Your task to perform on an android device: What is the news today? Image 0: 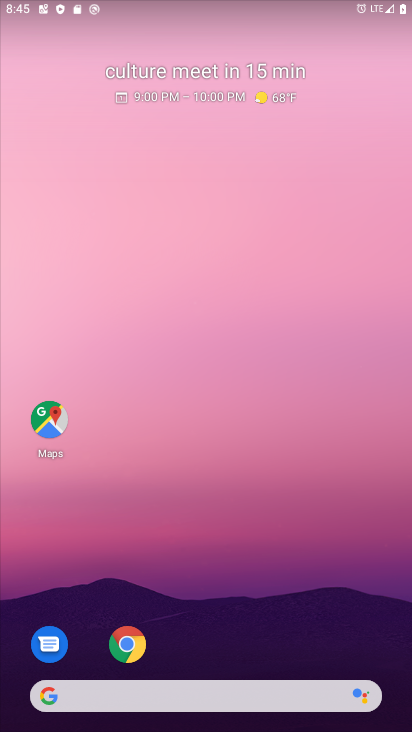
Step 0: click (171, 162)
Your task to perform on an android device: What is the news today? Image 1: 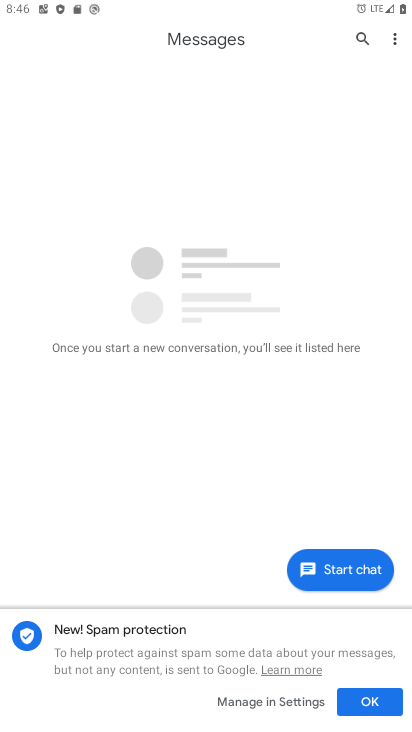
Step 1: press home button
Your task to perform on an android device: What is the news today? Image 2: 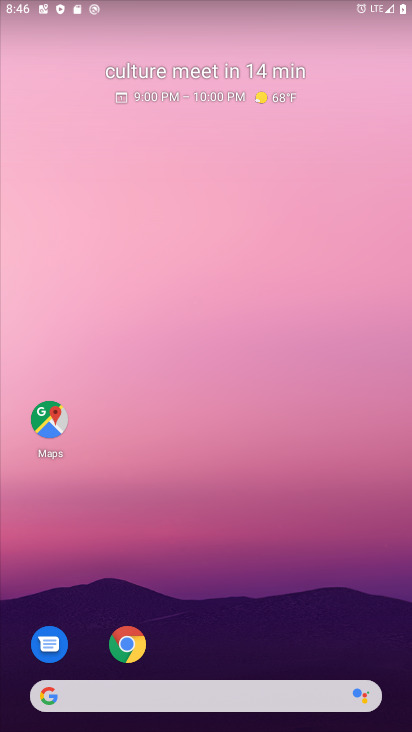
Step 2: drag from (219, 718) to (187, 200)
Your task to perform on an android device: What is the news today? Image 3: 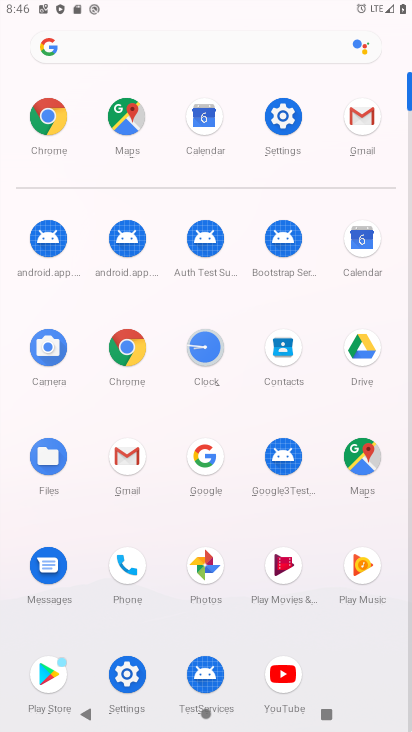
Step 3: click (132, 43)
Your task to perform on an android device: What is the news today? Image 4: 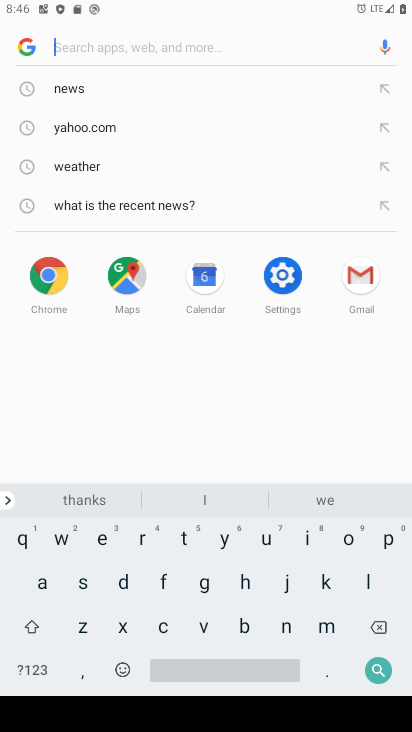
Step 4: click (111, 89)
Your task to perform on an android device: What is the news today? Image 5: 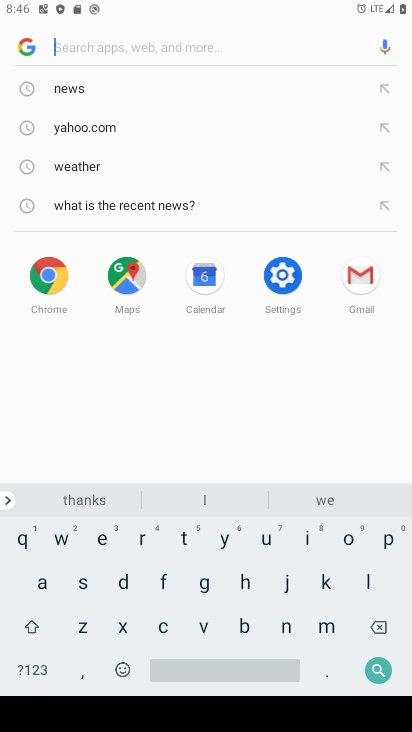
Step 5: click (103, 86)
Your task to perform on an android device: What is the news today? Image 6: 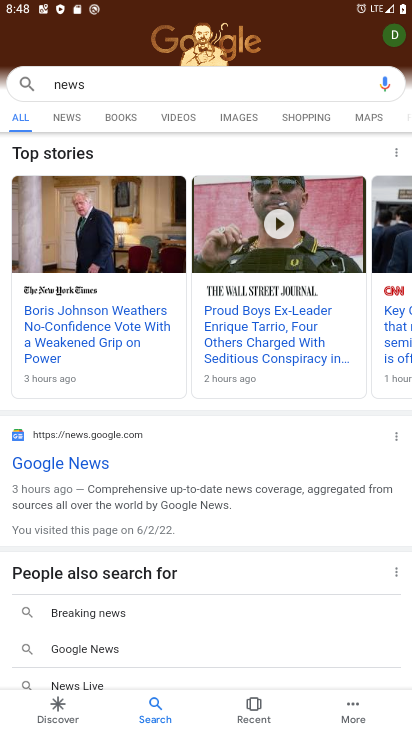
Step 6: task complete